Your task to perform on an android device: Open the calendar app, open the side menu, and click the "Day" option Image 0: 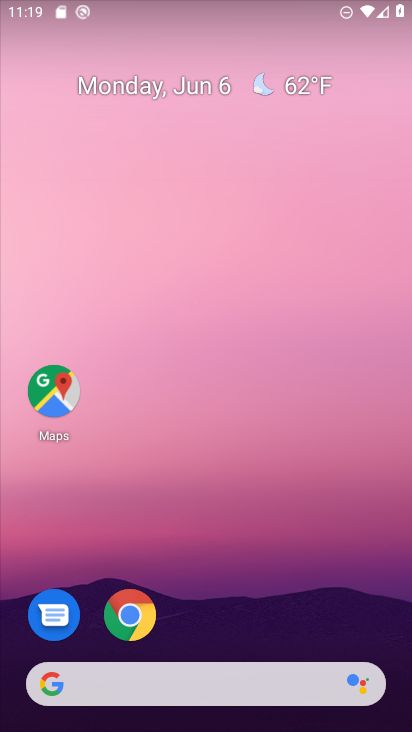
Step 0: drag from (240, 682) to (147, 8)
Your task to perform on an android device: Open the calendar app, open the side menu, and click the "Day" option Image 1: 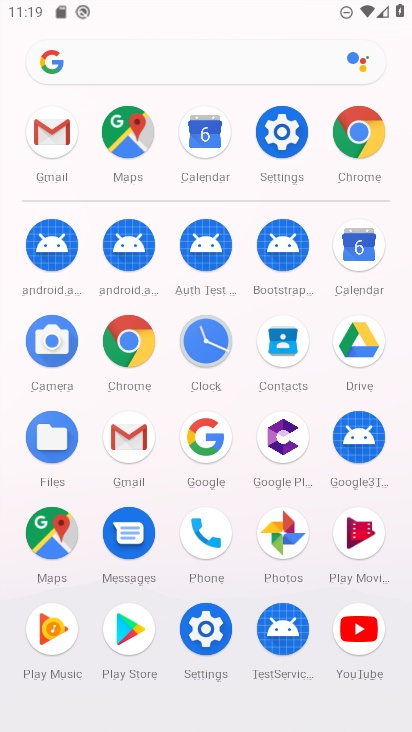
Step 1: click (356, 257)
Your task to perform on an android device: Open the calendar app, open the side menu, and click the "Day" option Image 2: 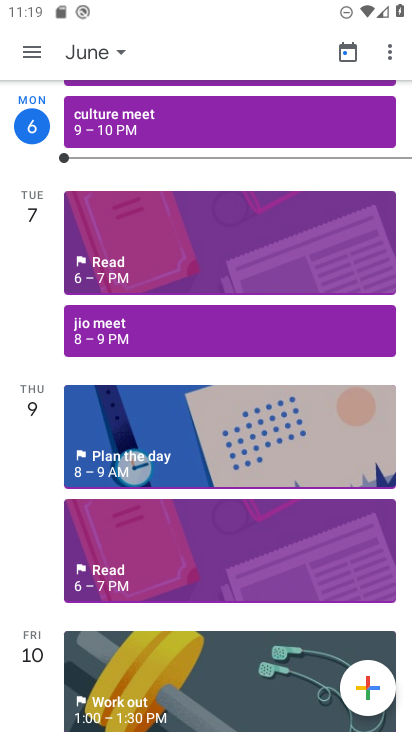
Step 2: click (39, 58)
Your task to perform on an android device: Open the calendar app, open the side menu, and click the "Day" option Image 3: 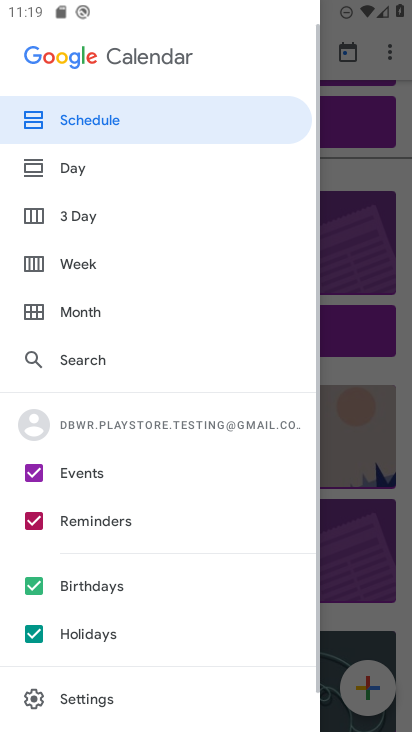
Step 3: click (84, 163)
Your task to perform on an android device: Open the calendar app, open the side menu, and click the "Day" option Image 4: 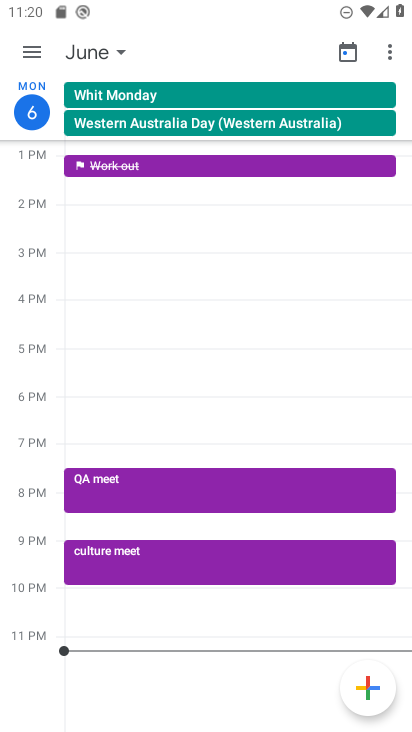
Step 4: task complete